Your task to perform on an android device: set the timer Image 0: 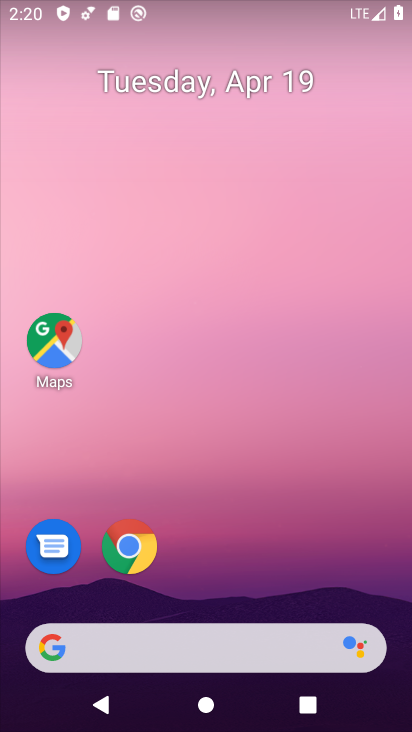
Step 0: click (238, 320)
Your task to perform on an android device: set the timer Image 1: 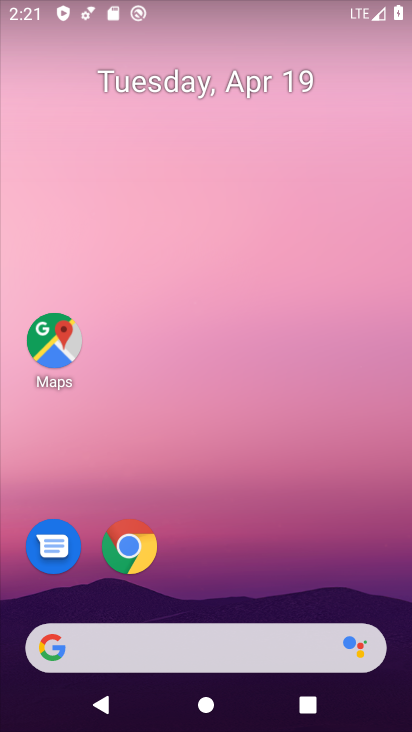
Step 1: drag from (304, 618) to (372, 26)
Your task to perform on an android device: set the timer Image 2: 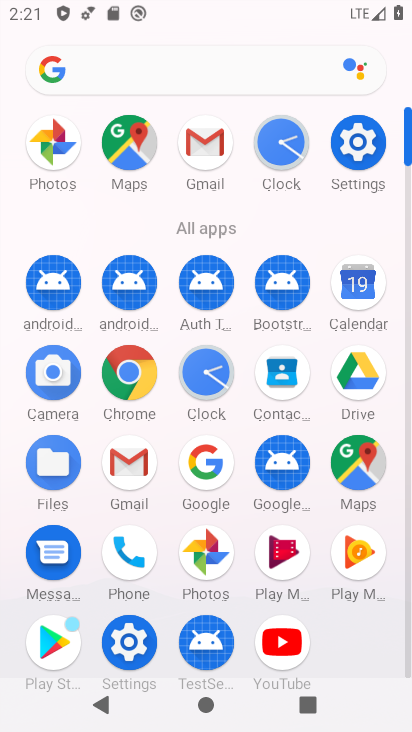
Step 2: click (295, 147)
Your task to perform on an android device: set the timer Image 3: 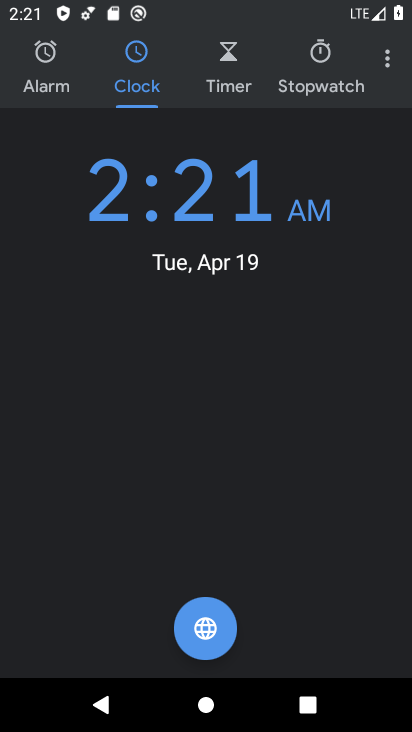
Step 3: click (236, 75)
Your task to perform on an android device: set the timer Image 4: 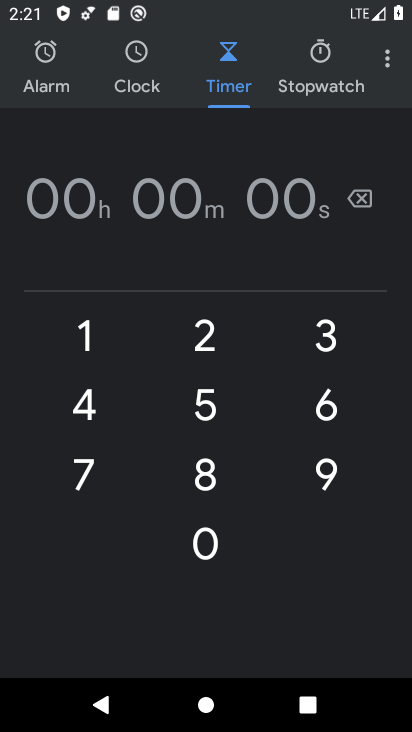
Step 4: click (208, 330)
Your task to perform on an android device: set the timer Image 5: 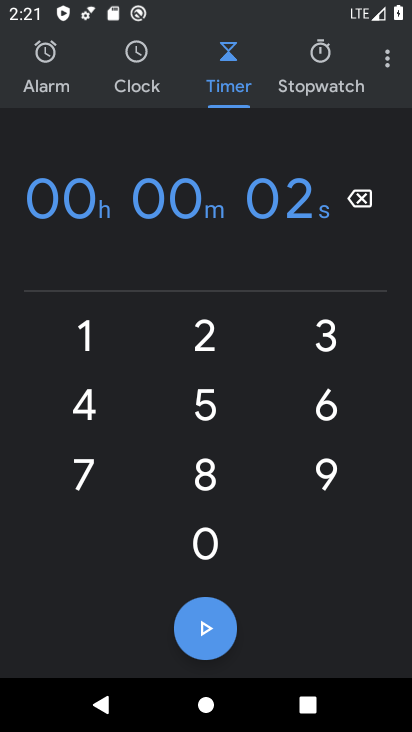
Step 5: task complete